Your task to perform on an android device: turn on priority inbox in the gmail app Image 0: 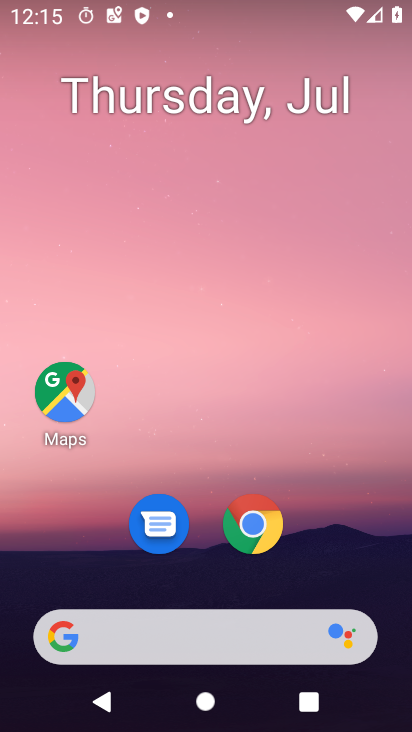
Step 0: drag from (278, 382) to (362, 75)
Your task to perform on an android device: turn on priority inbox in the gmail app Image 1: 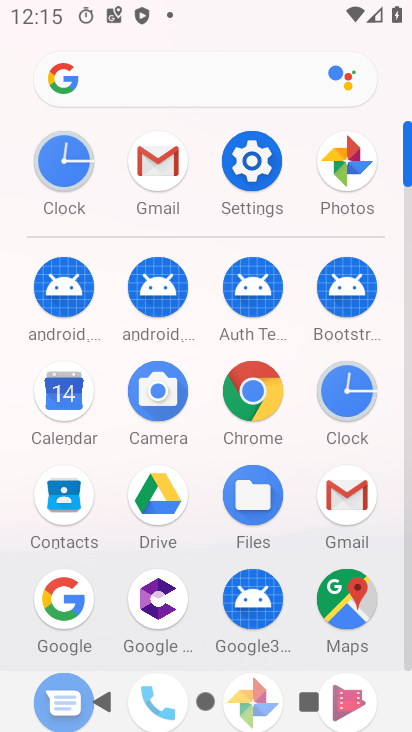
Step 1: click (153, 157)
Your task to perform on an android device: turn on priority inbox in the gmail app Image 2: 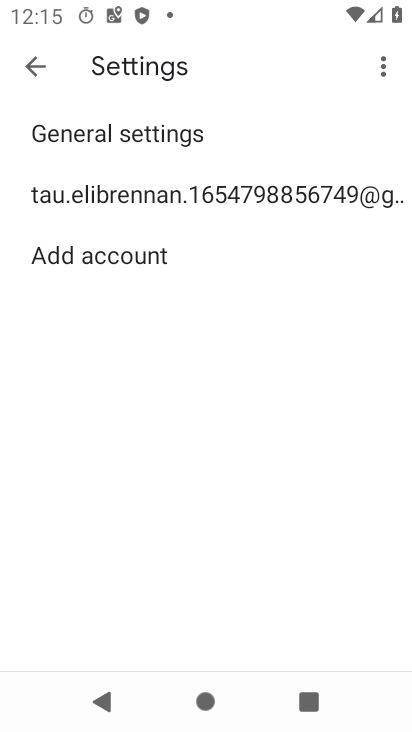
Step 2: click (228, 197)
Your task to perform on an android device: turn on priority inbox in the gmail app Image 3: 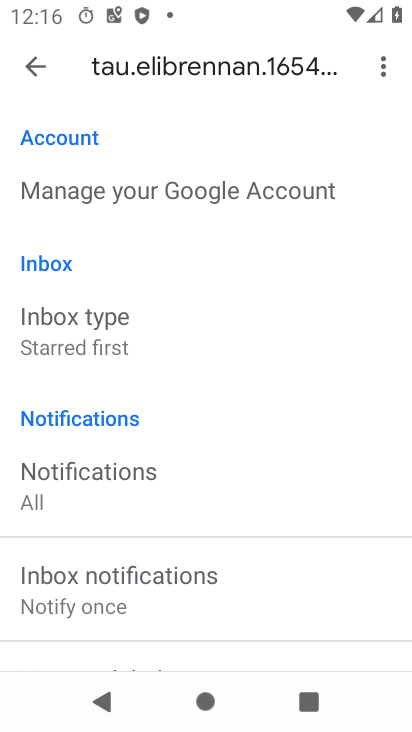
Step 3: click (84, 344)
Your task to perform on an android device: turn on priority inbox in the gmail app Image 4: 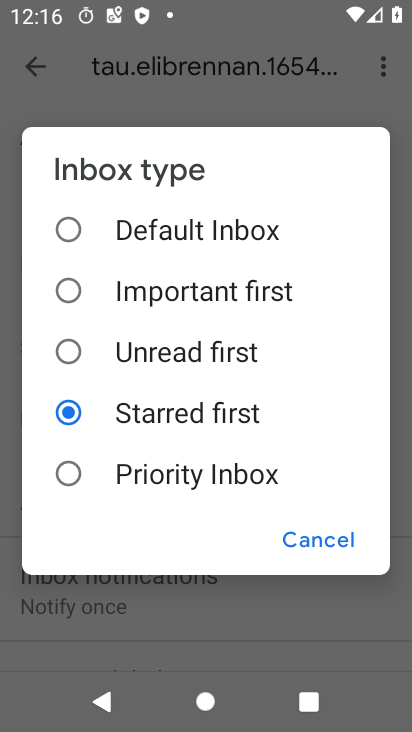
Step 4: click (67, 474)
Your task to perform on an android device: turn on priority inbox in the gmail app Image 5: 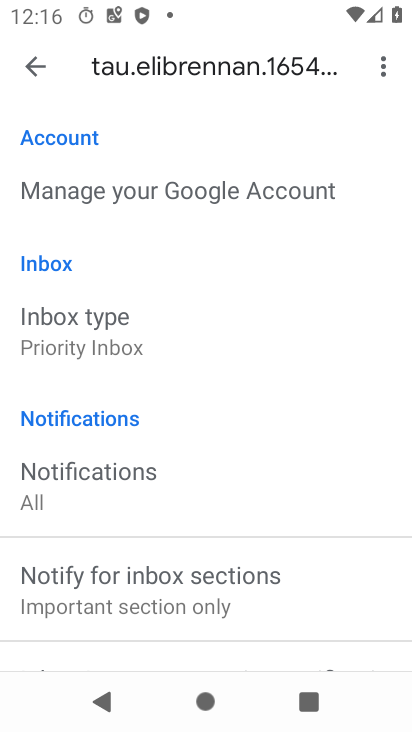
Step 5: task complete